Your task to perform on an android device: open chrome privacy settings Image 0: 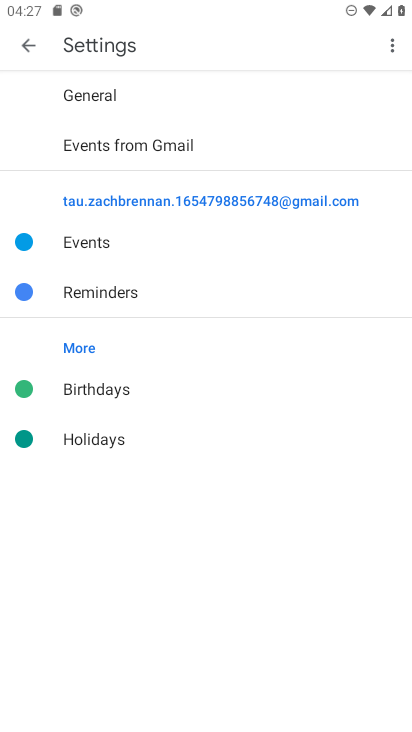
Step 0: press home button
Your task to perform on an android device: open chrome privacy settings Image 1: 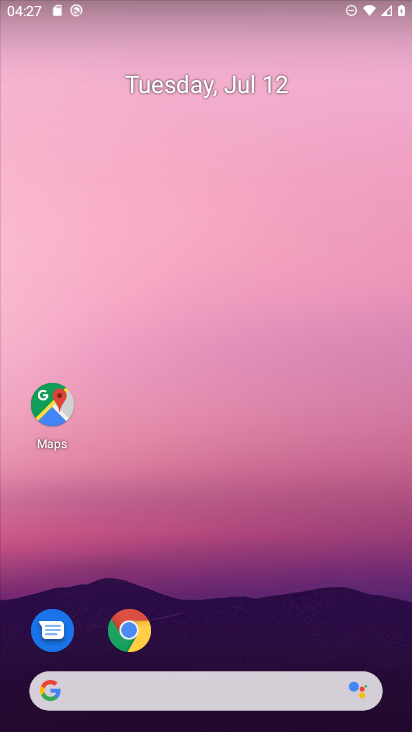
Step 1: click (130, 633)
Your task to perform on an android device: open chrome privacy settings Image 2: 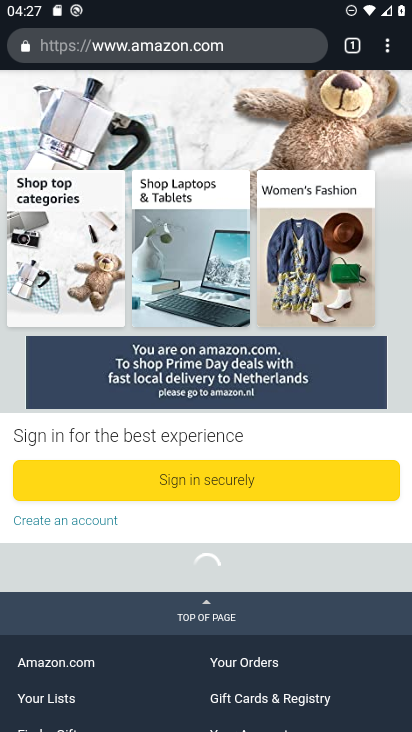
Step 2: click (386, 49)
Your task to perform on an android device: open chrome privacy settings Image 3: 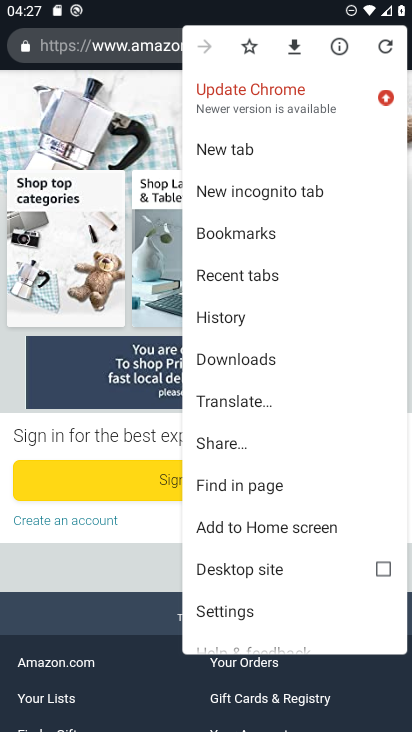
Step 3: click (219, 611)
Your task to perform on an android device: open chrome privacy settings Image 4: 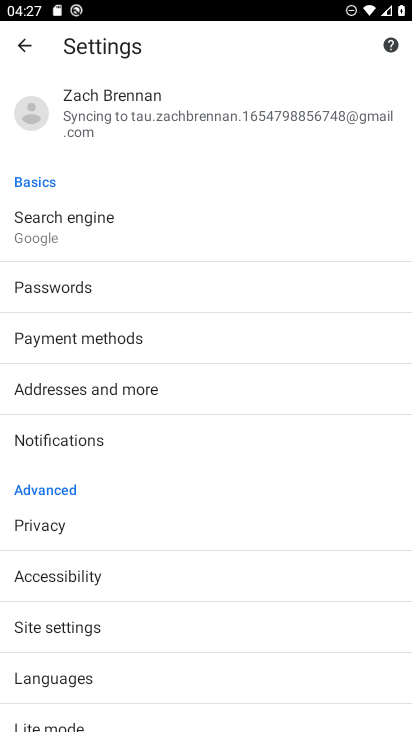
Step 4: click (35, 517)
Your task to perform on an android device: open chrome privacy settings Image 5: 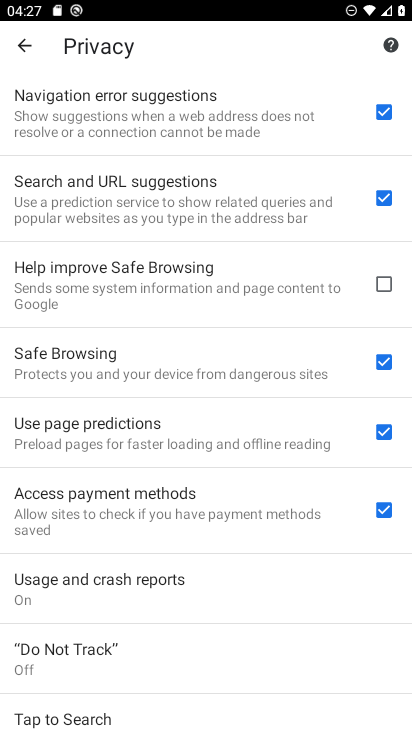
Step 5: task complete